Your task to perform on an android device: Turn off the flashlight Image 0: 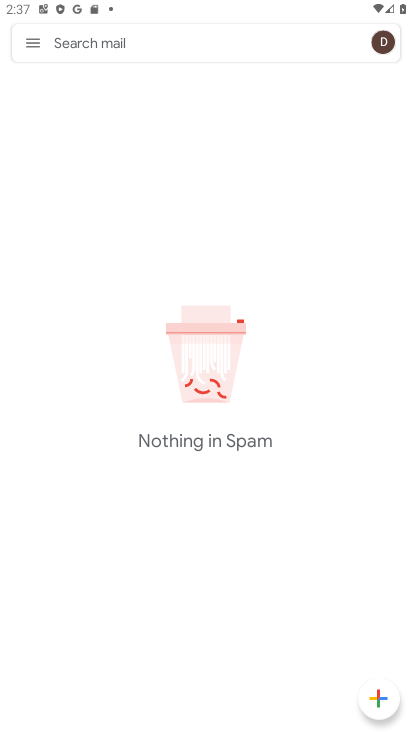
Step 0: press home button
Your task to perform on an android device: Turn off the flashlight Image 1: 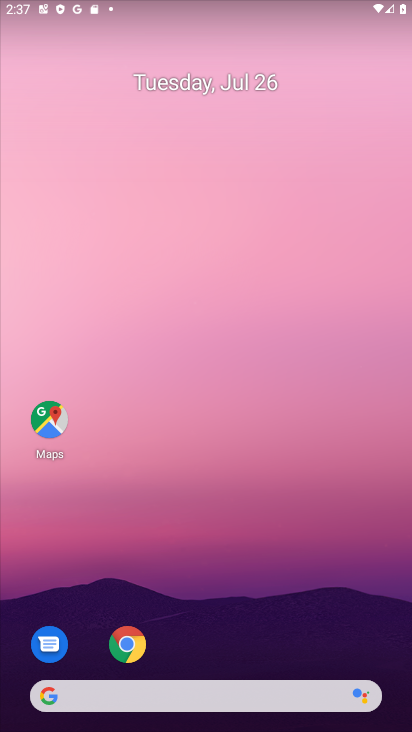
Step 1: drag from (183, 679) to (4, 231)
Your task to perform on an android device: Turn off the flashlight Image 2: 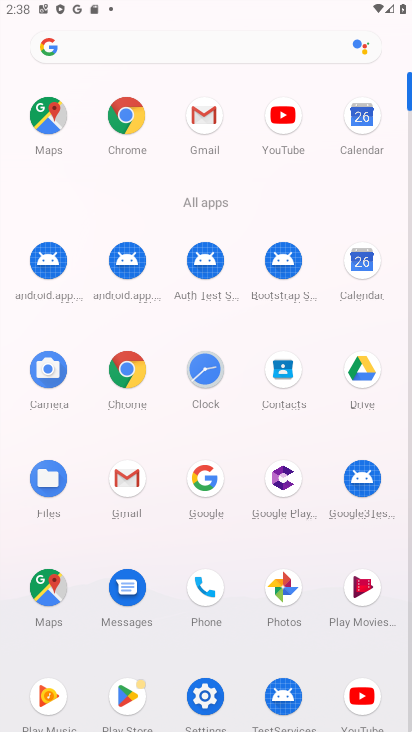
Step 2: click (212, 694)
Your task to perform on an android device: Turn off the flashlight Image 3: 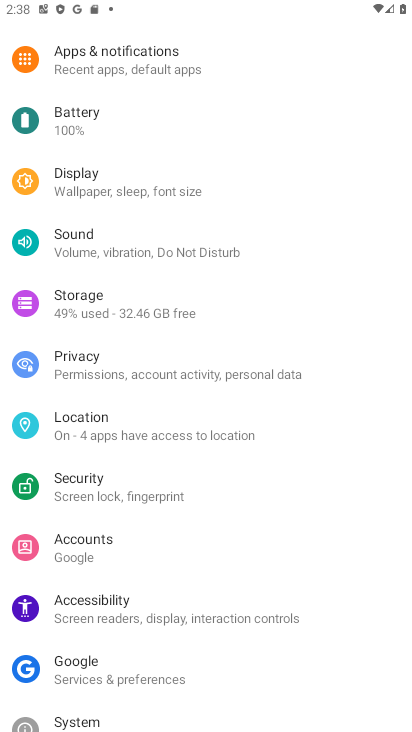
Step 3: task complete